Your task to perform on an android device: change notifications settings Image 0: 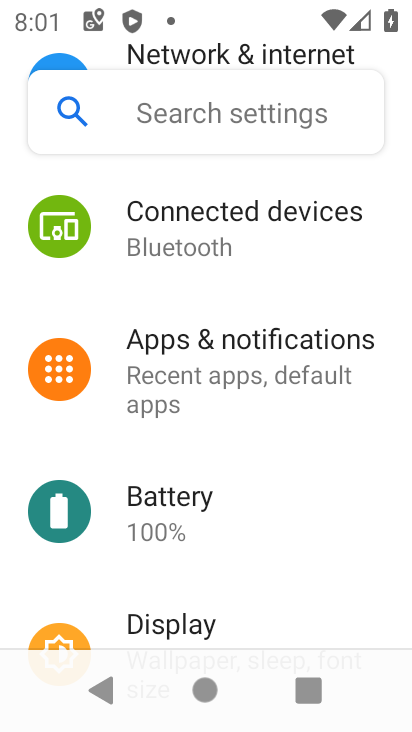
Step 0: press home button
Your task to perform on an android device: change notifications settings Image 1: 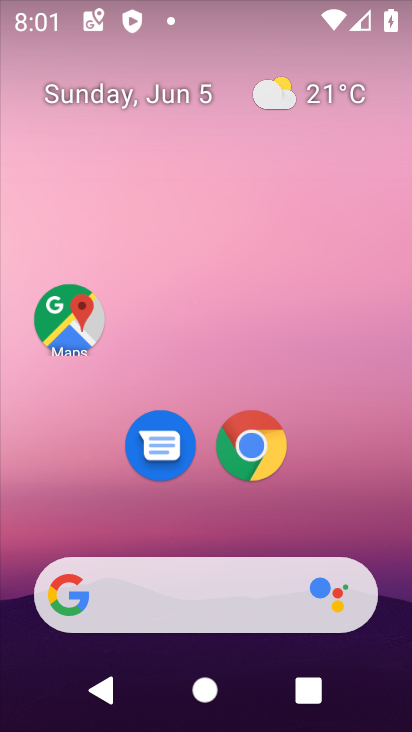
Step 1: drag from (349, 493) to (332, 65)
Your task to perform on an android device: change notifications settings Image 2: 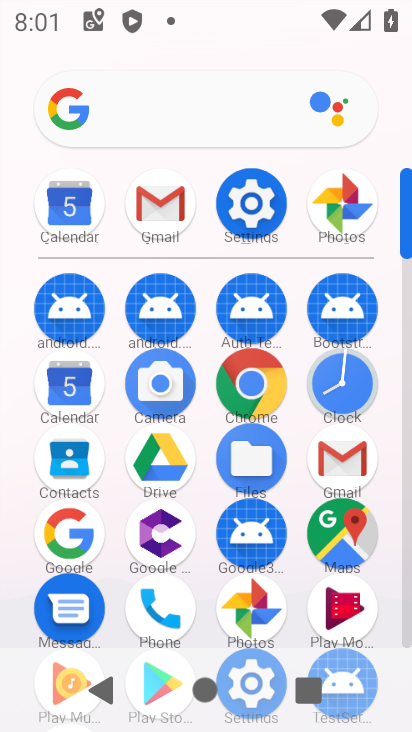
Step 2: click (233, 202)
Your task to perform on an android device: change notifications settings Image 3: 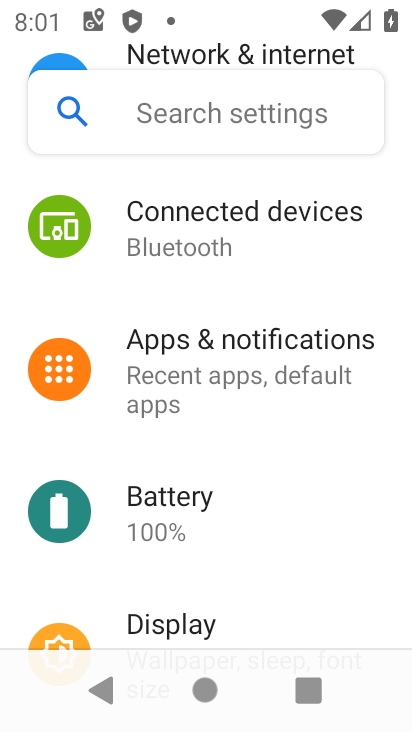
Step 3: click (246, 343)
Your task to perform on an android device: change notifications settings Image 4: 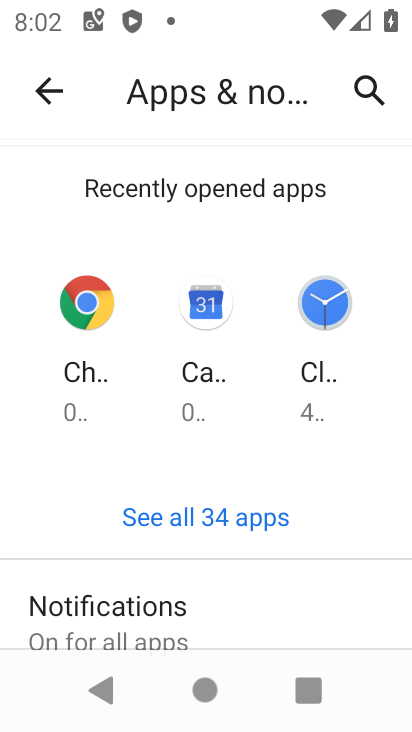
Step 4: click (198, 602)
Your task to perform on an android device: change notifications settings Image 5: 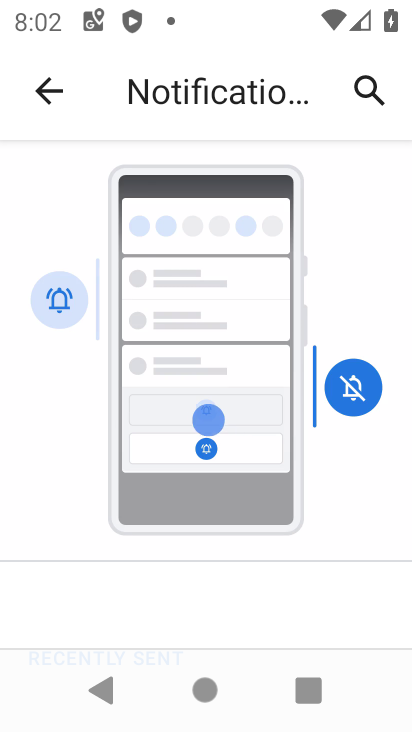
Step 5: drag from (53, 583) to (132, 78)
Your task to perform on an android device: change notifications settings Image 6: 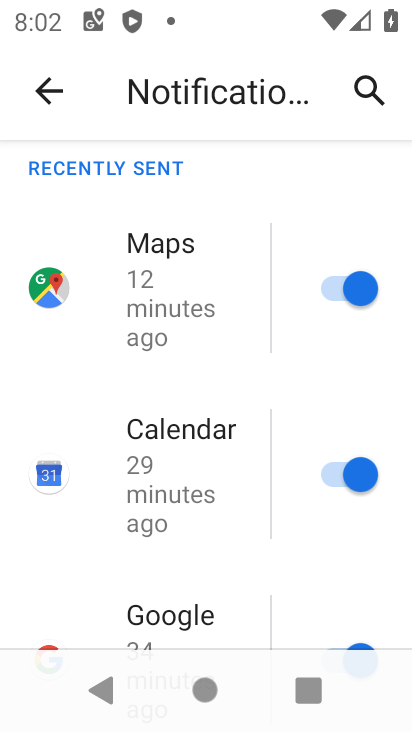
Step 6: drag from (45, 575) to (204, 20)
Your task to perform on an android device: change notifications settings Image 7: 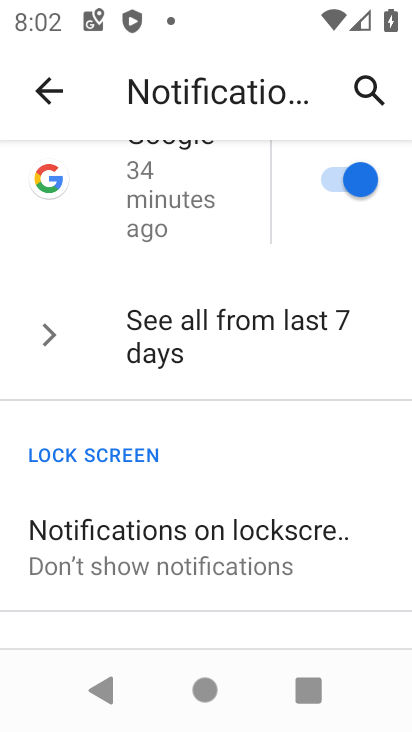
Step 7: drag from (323, 414) to (299, 159)
Your task to perform on an android device: change notifications settings Image 8: 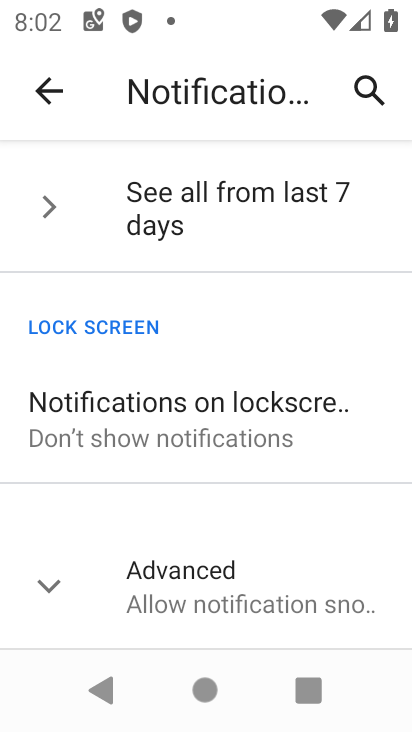
Step 8: drag from (243, 252) to (264, 619)
Your task to perform on an android device: change notifications settings Image 9: 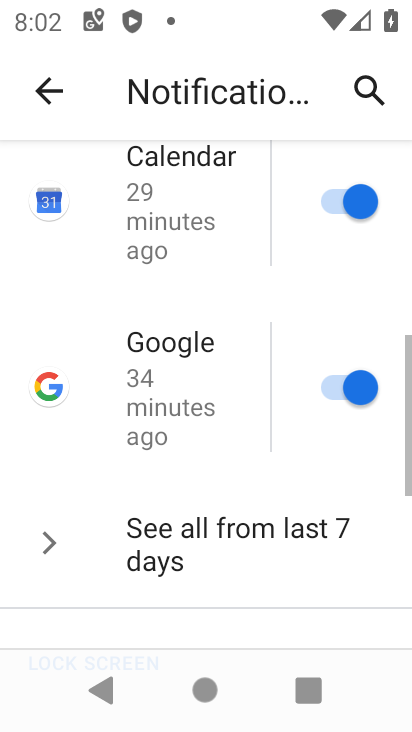
Step 9: drag from (44, 298) to (83, 603)
Your task to perform on an android device: change notifications settings Image 10: 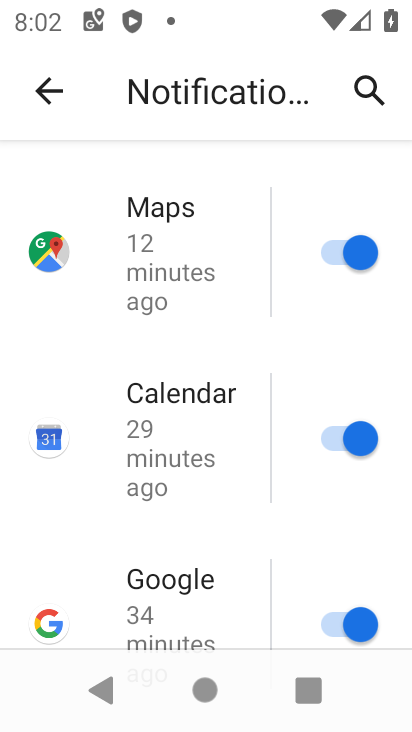
Step 10: drag from (52, 334) to (0, 726)
Your task to perform on an android device: change notifications settings Image 11: 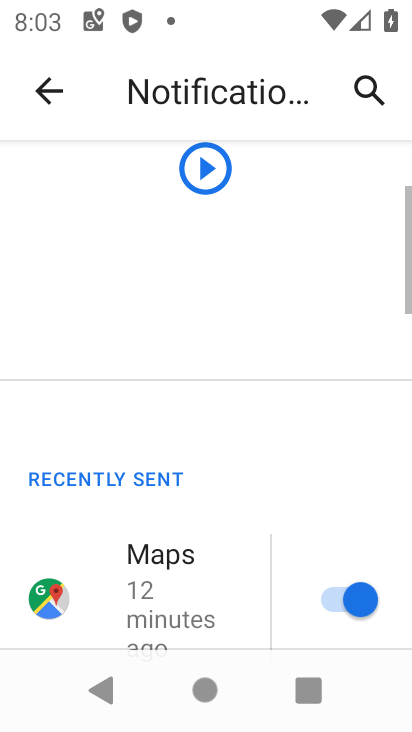
Step 11: drag from (224, 453) to (209, 56)
Your task to perform on an android device: change notifications settings Image 12: 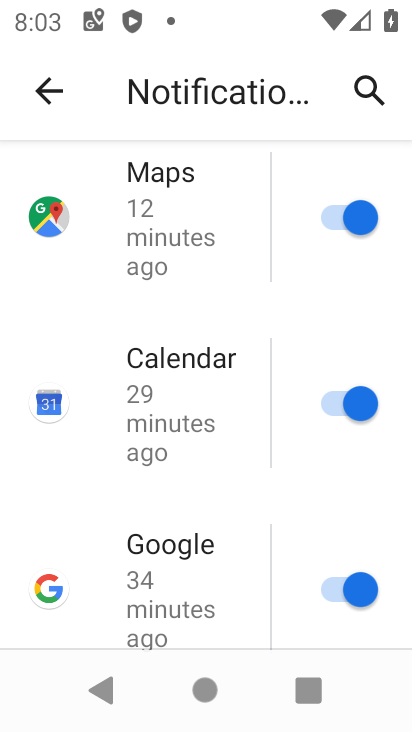
Step 12: click (158, 381)
Your task to perform on an android device: change notifications settings Image 13: 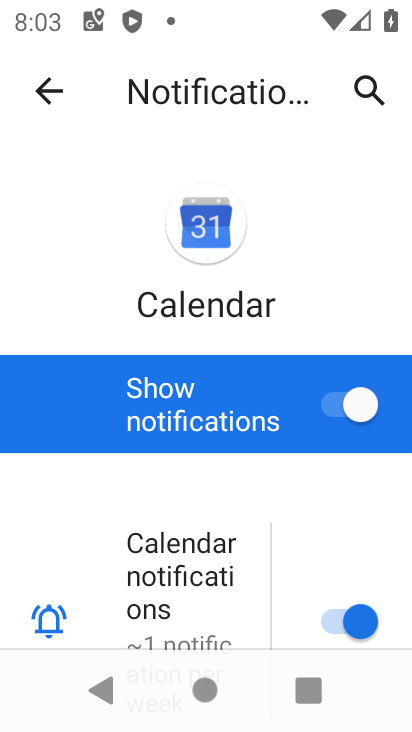
Step 13: drag from (77, 509) to (91, 254)
Your task to perform on an android device: change notifications settings Image 14: 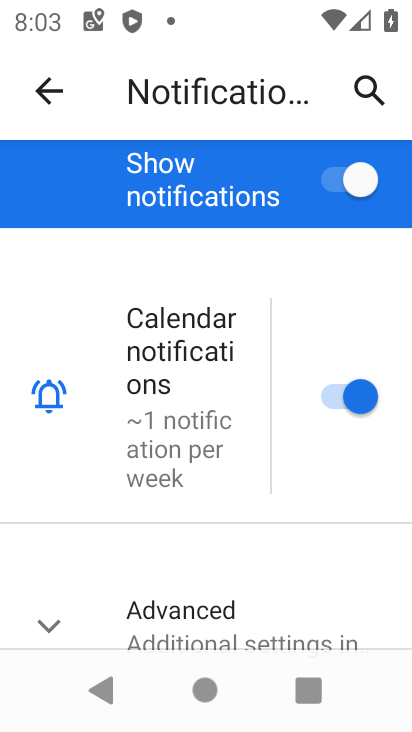
Step 14: click (352, 380)
Your task to perform on an android device: change notifications settings Image 15: 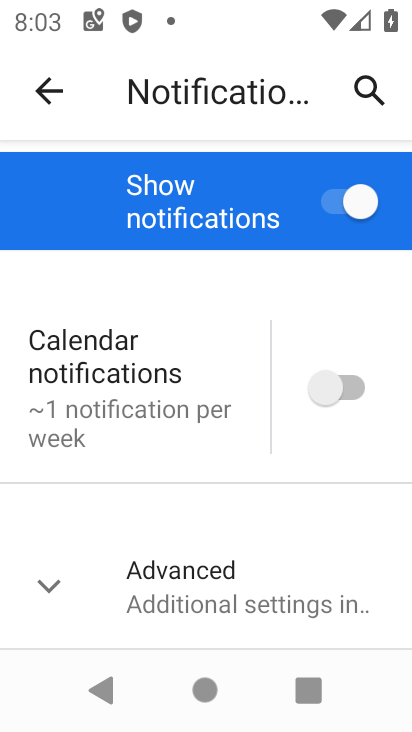
Step 15: task complete